Your task to perform on an android device: Open Google Chrome Image 0: 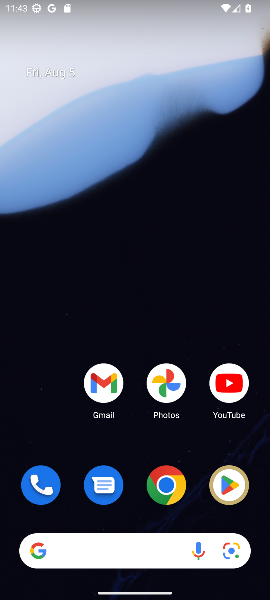
Step 0: click (134, 181)
Your task to perform on an android device: Open Google Chrome Image 1: 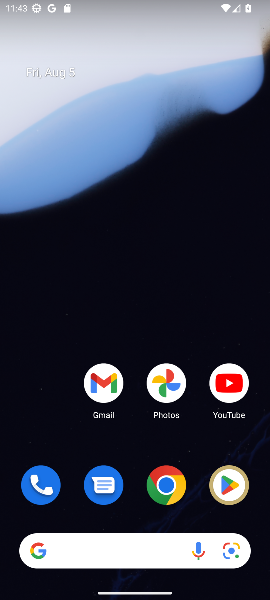
Step 1: click (169, 482)
Your task to perform on an android device: Open Google Chrome Image 2: 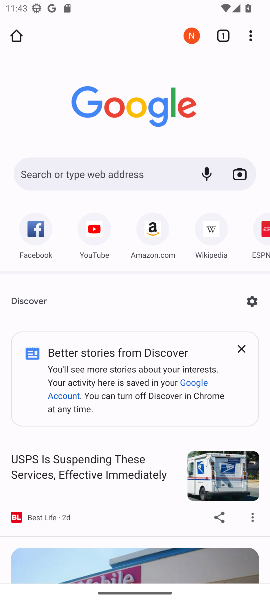
Step 2: task complete